Your task to perform on an android device: choose inbox layout in the gmail app Image 0: 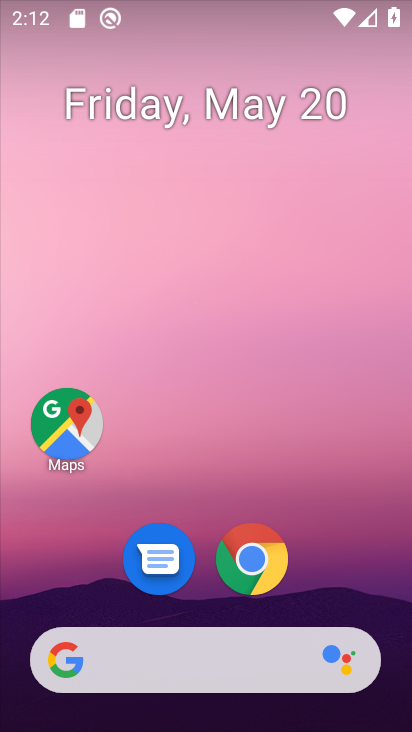
Step 0: drag from (221, 616) to (183, 46)
Your task to perform on an android device: choose inbox layout in the gmail app Image 1: 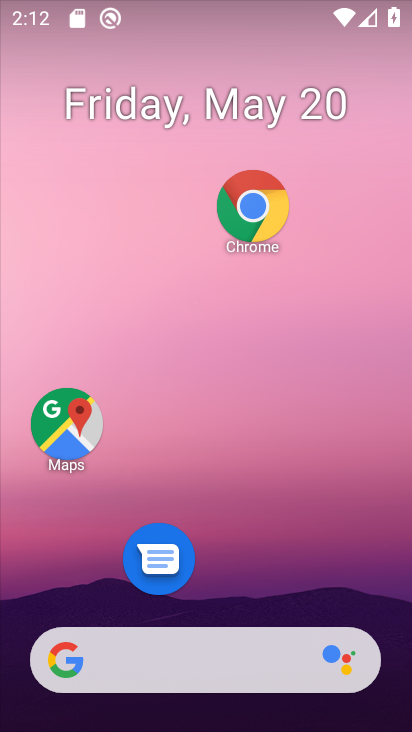
Step 1: drag from (217, 613) to (164, 8)
Your task to perform on an android device: choose inbox layout in the gmail app Image 2: 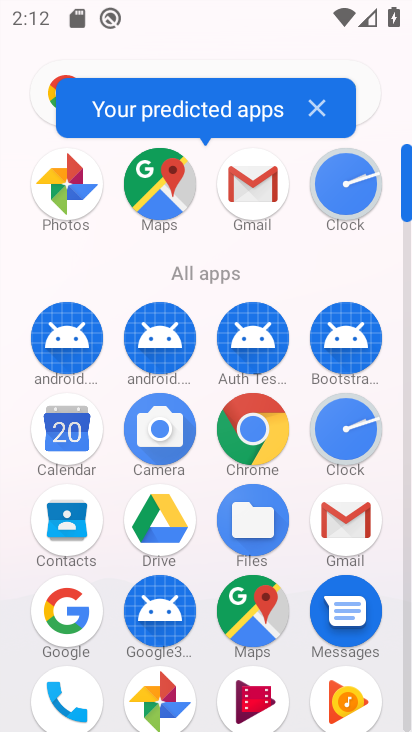
Step 2: click (356, 506)
Your task to perform on an android device: choose inbox layout in the gmail app Image 3: 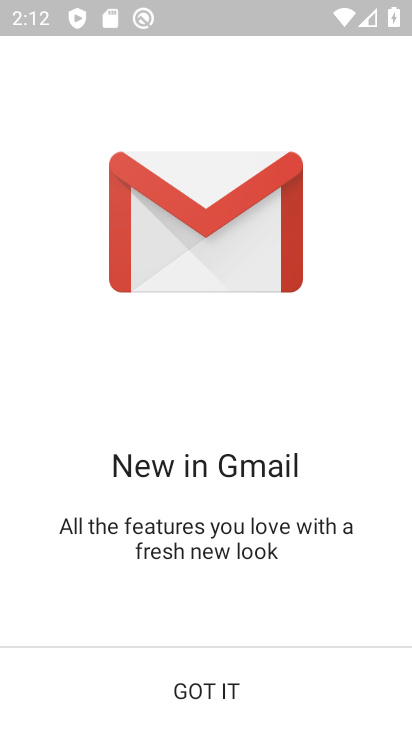
Step 3: click (122, 695)
Your task to perform on an android device: choose inbox layout in the gmail app Image 4: 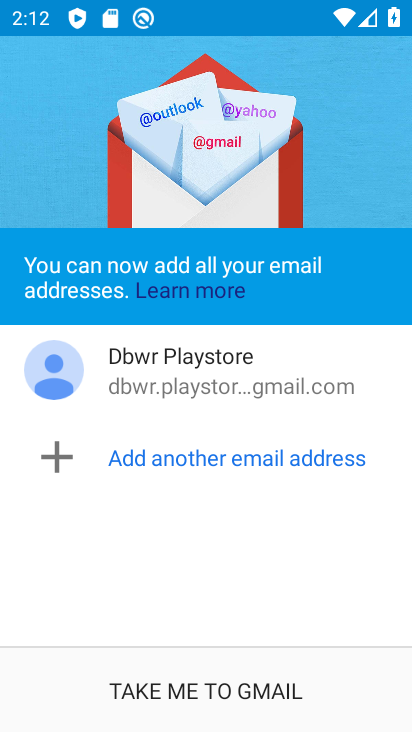
Step 4: click (242, 703)
Your task to perform on an android device: choose inbox layout in the gmail app Image 5: 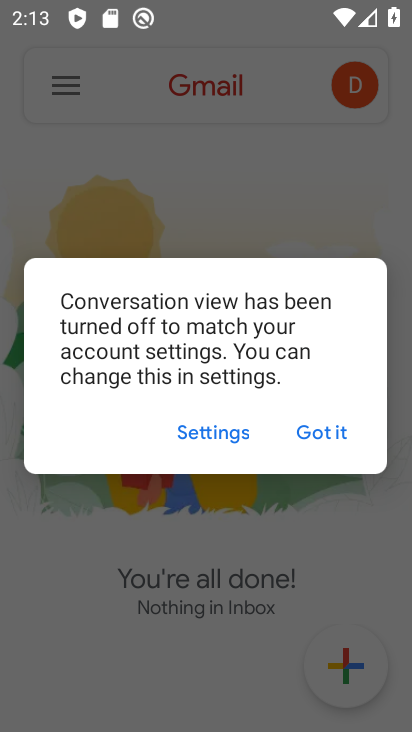
Step 5: click (338, 437)
Your task to perform on an android device: choose inbox layout in the gmail app Image 6: 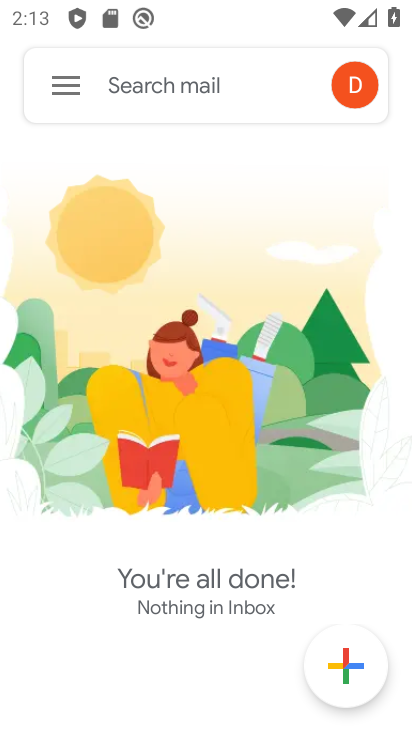
Step 6: task complete